Your task to perform on an android device: add a contact Image 0: 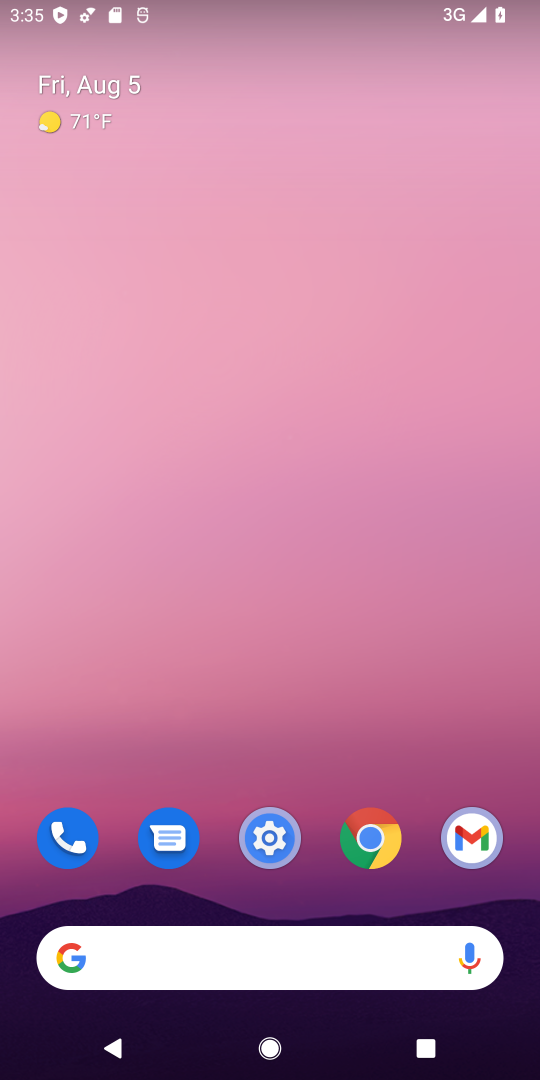
Step 0: drag from (296, 933) to (307, 170)
Your task to perform on an android device: add a contact Image 1: 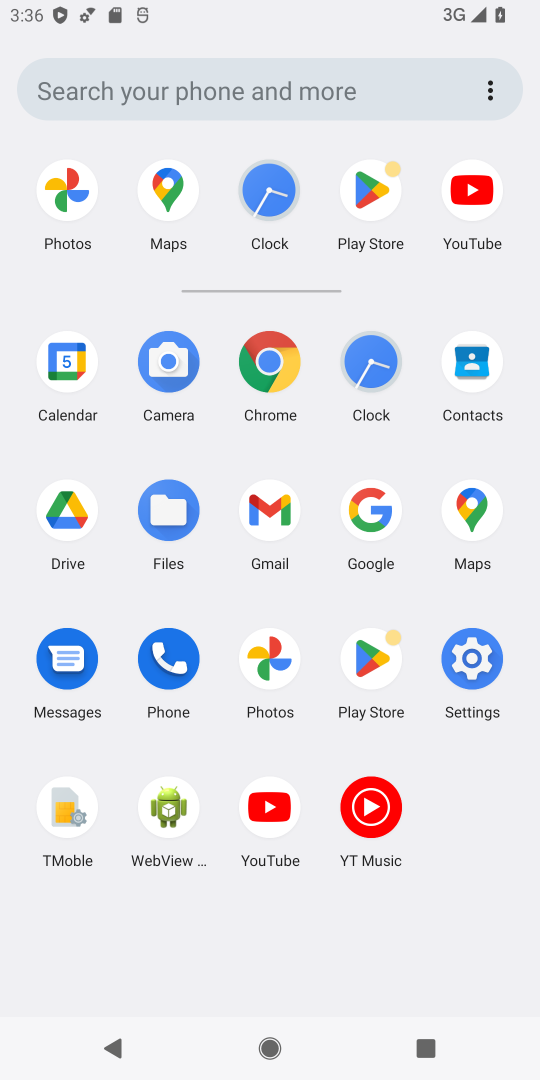
Step 1: click (172, 663)
Your task to perform on an android device: add a contact Image 2: 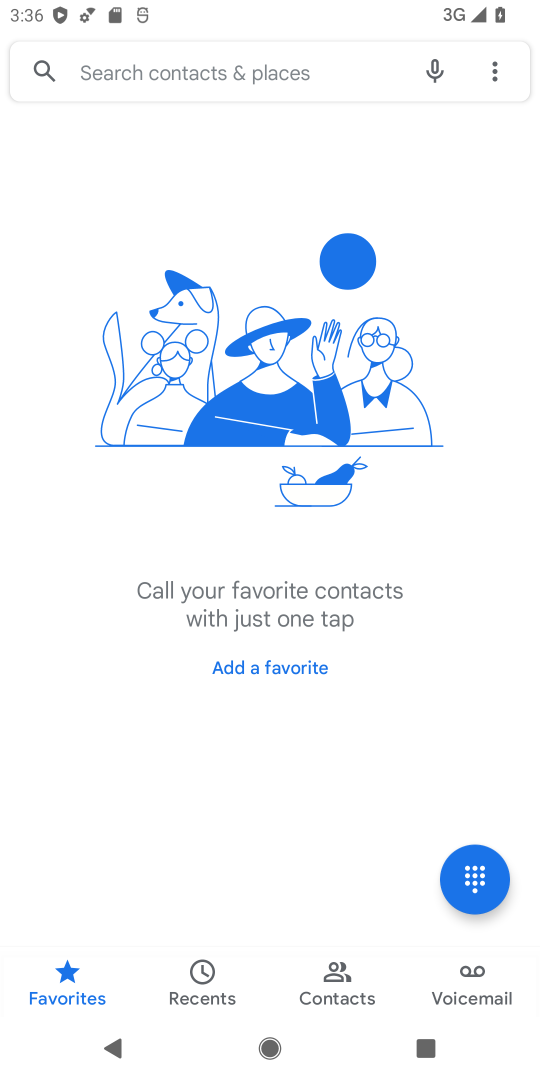
Step 2: click (489, 873)
Your task to perform on an android device: add a contact Image 3: 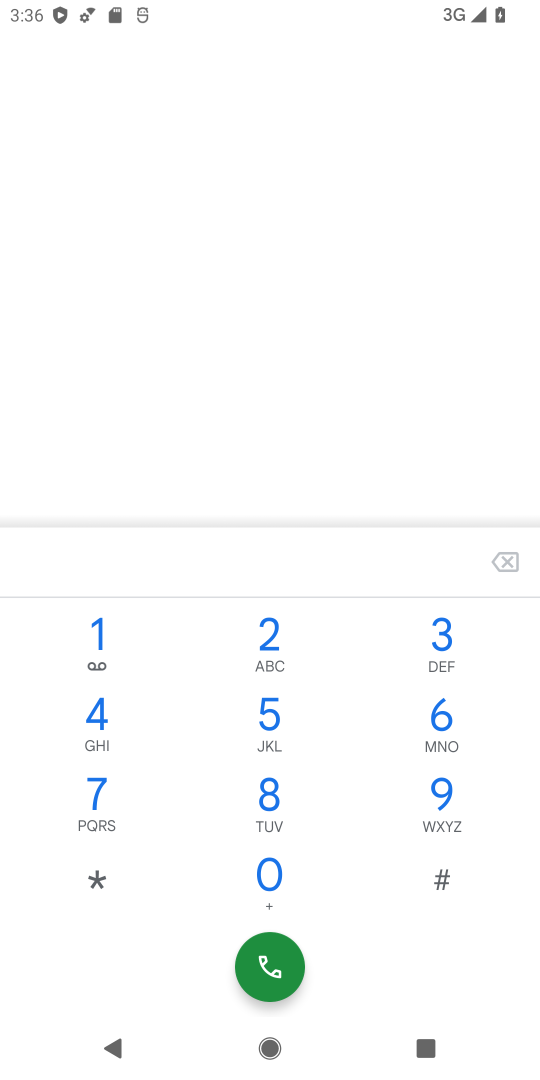
Step 3: press back button
Your task to perform on an android device: add a contact Image 4: 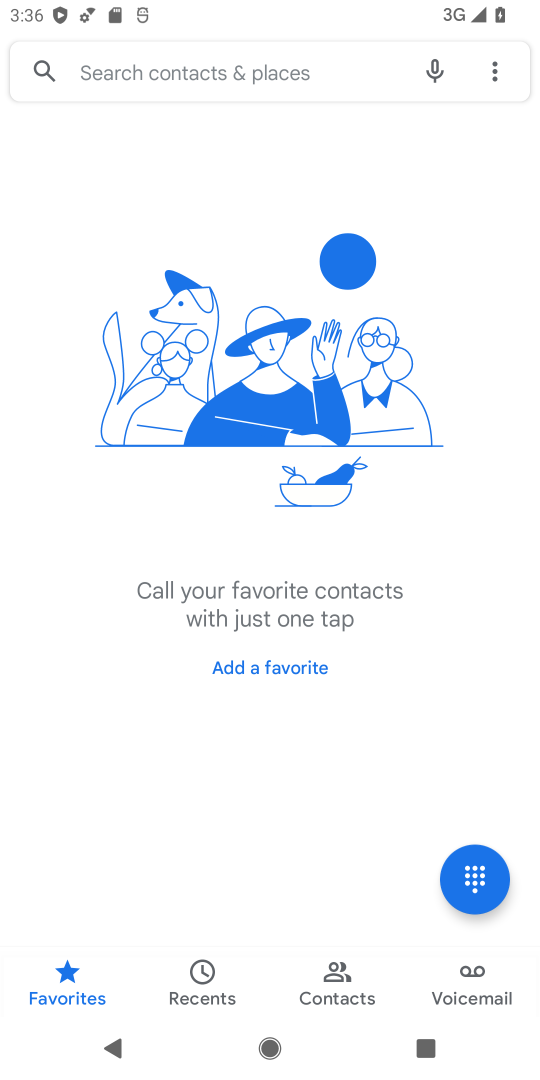
Step 4: click (202, 974)
Your task to perform on an android device: add a contact Image 5: 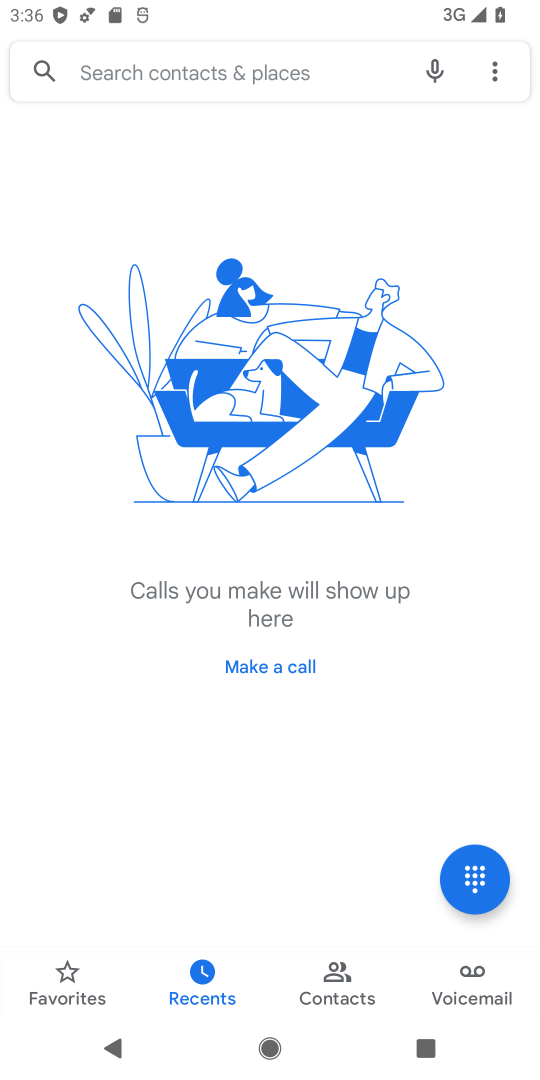
Step 5: click (361, 965)
Your task to perform on an android device: add a contact Image 6: 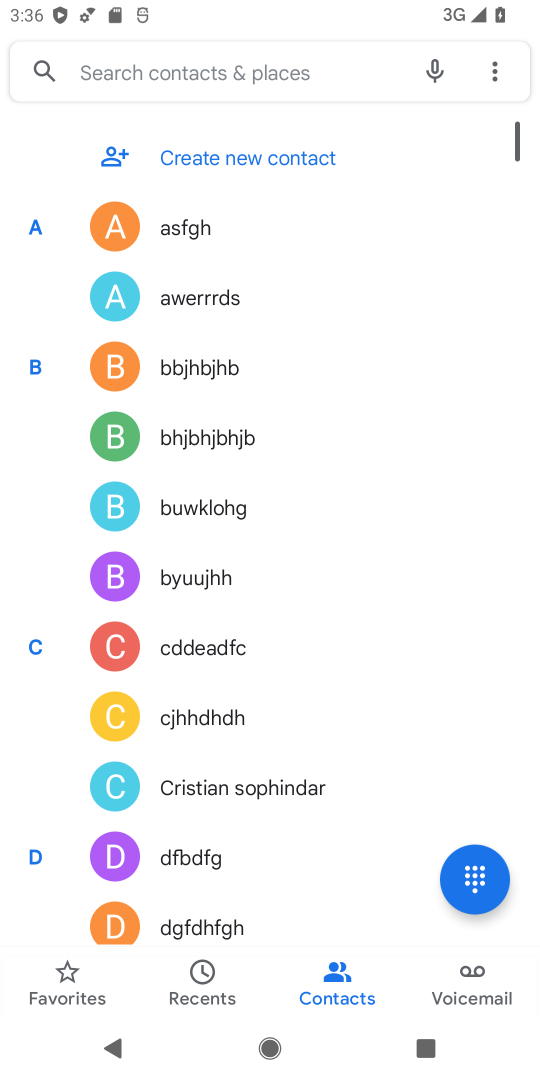
Step 6: click (273, 155)
Your task to perform on an android device: add a contact Image 7: 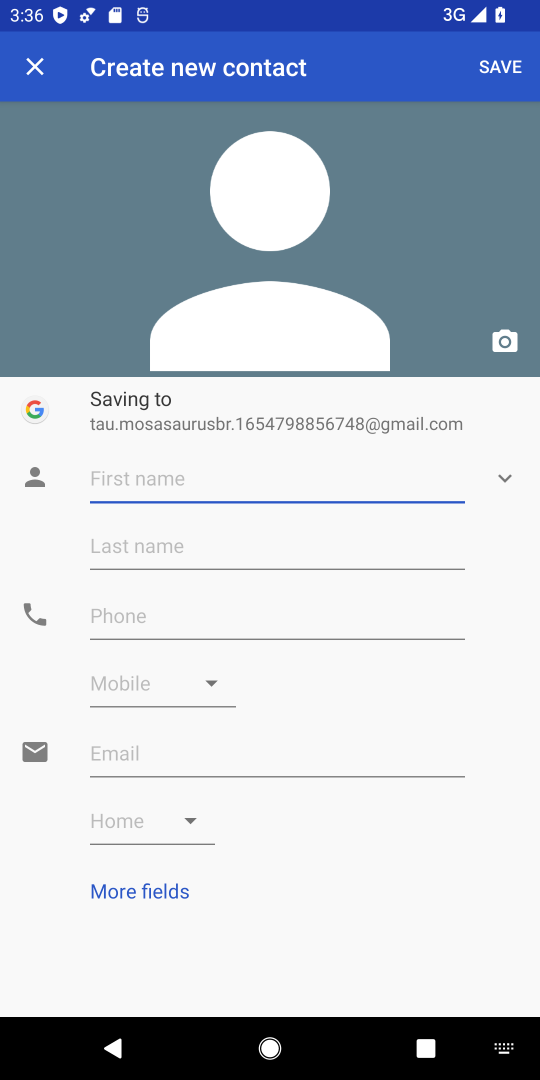
Step 7: click (214, 478)
Your task to perform on an android device: add a contact Image 8: 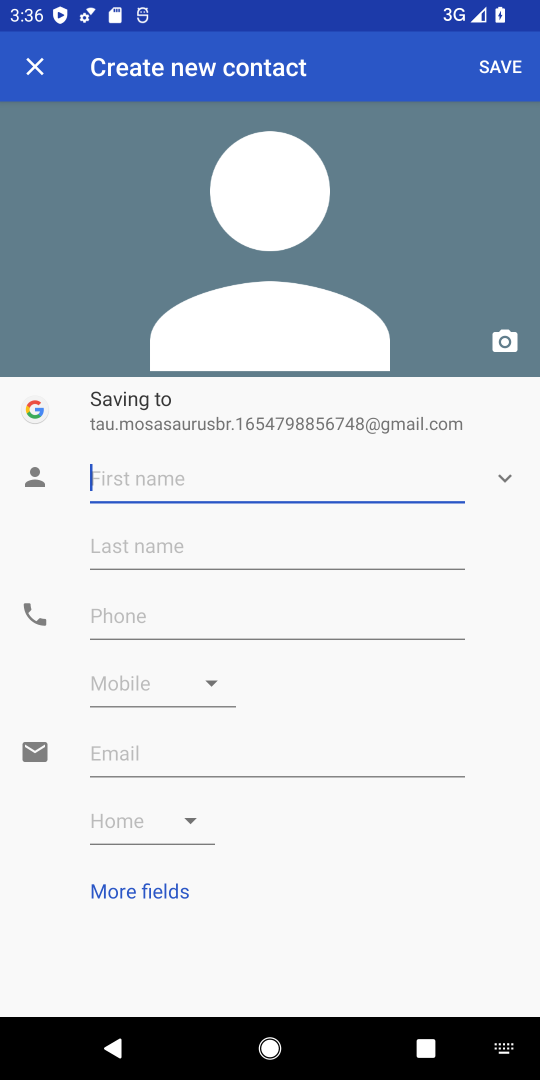
Step 8: type "shaluuu "
Your task to perform on an android device: add a contact Image 9: 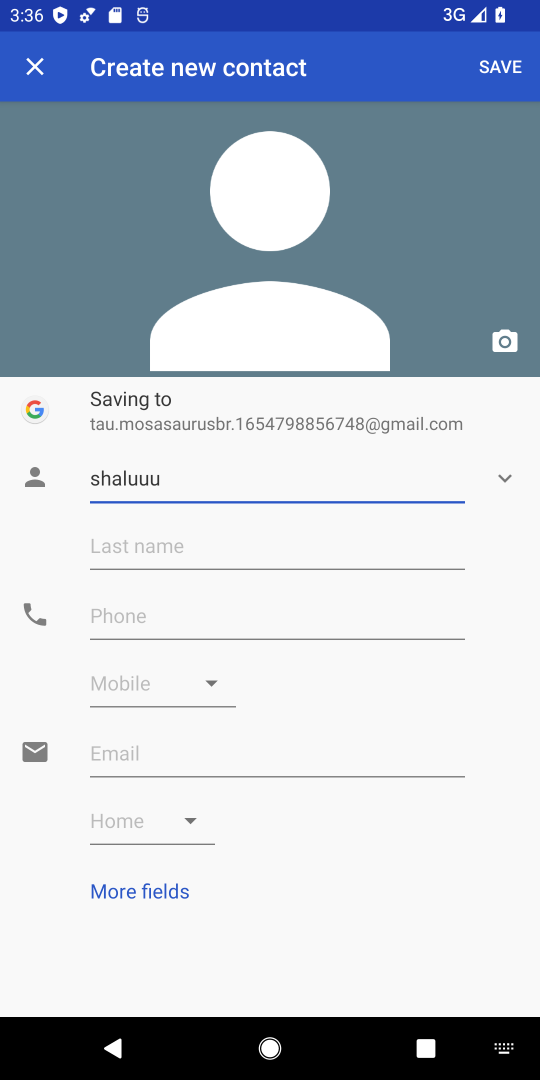
Step 9: click (226, 612)
Your task to perform on an android device: add a contact Image 10: 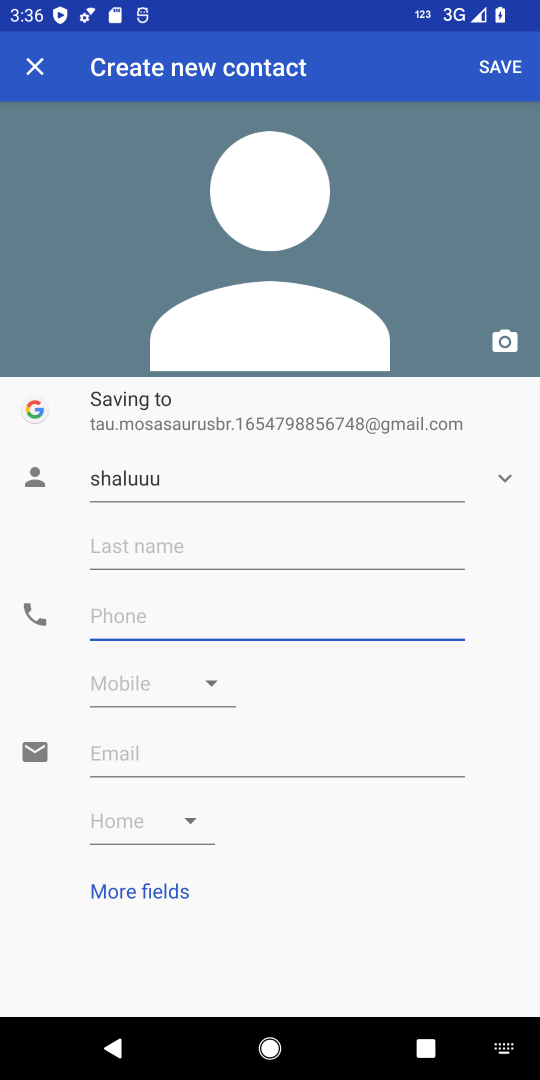
Step 10: type "987654321 "
Your task to perform on an android device: add a contact Image 11: 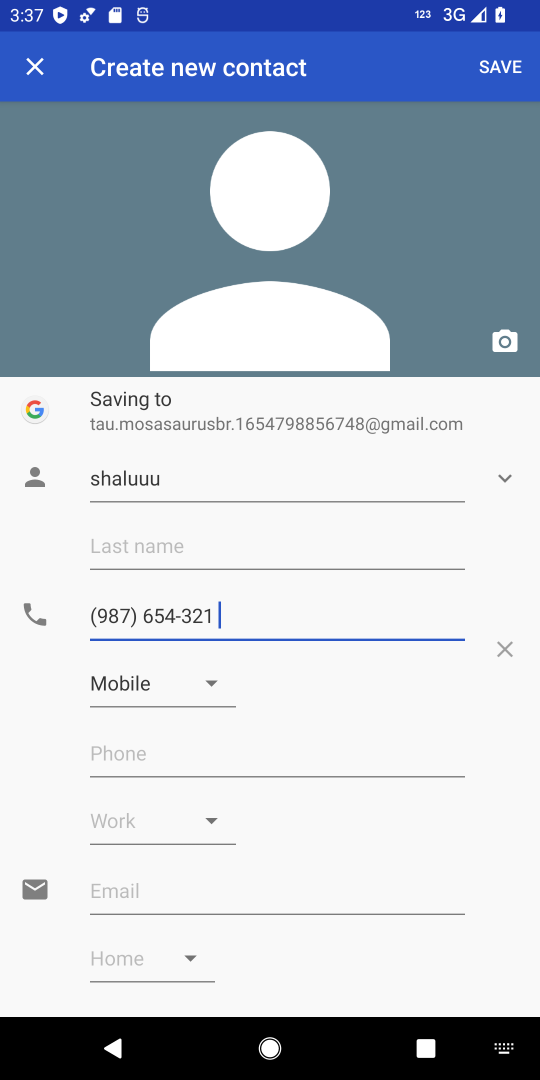
Step 11: click (516, 64)
Your task to perform on an android device: add a contact Image 12: 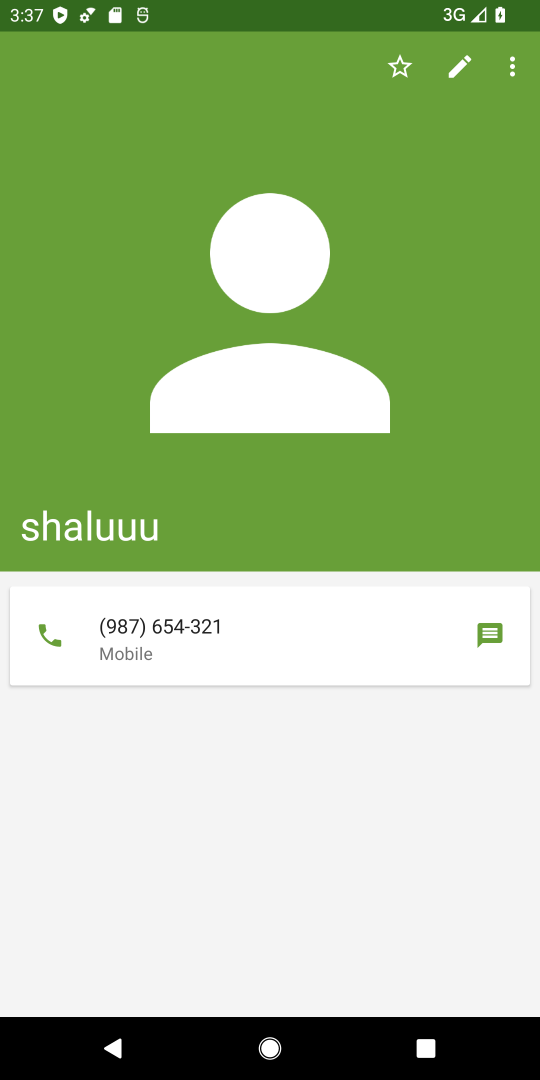
Step 12: task complete